Your task to perform on an android device: Open battery settings Image 0: 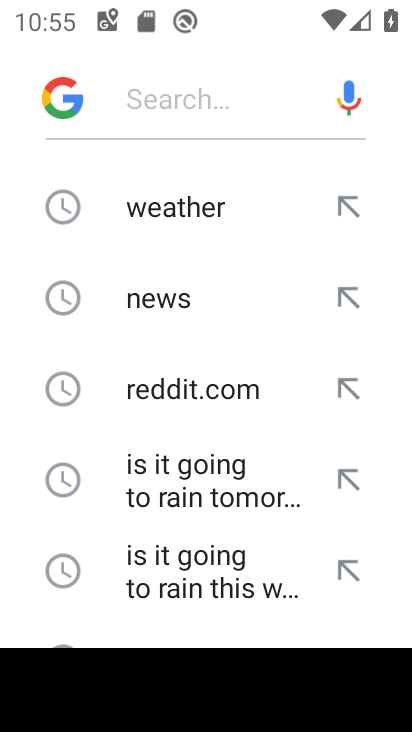
Step 0: press home button
Your task to perform on an android device: Open battery settings Image 1: 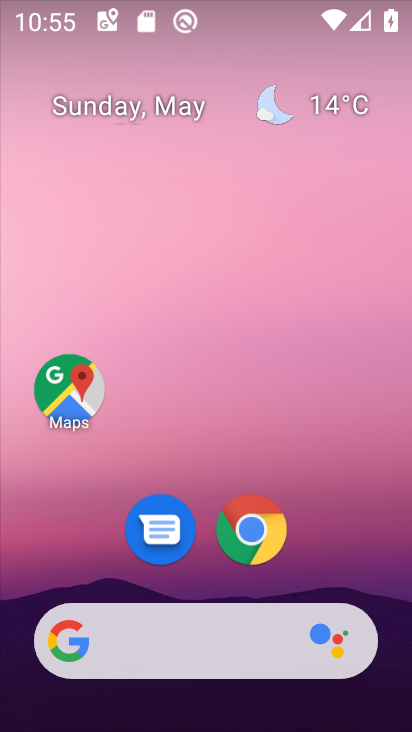
Step 1: drag from (215, 637) to (186, 142)
Your task to perform on an android device: Open battery settings Image 2: 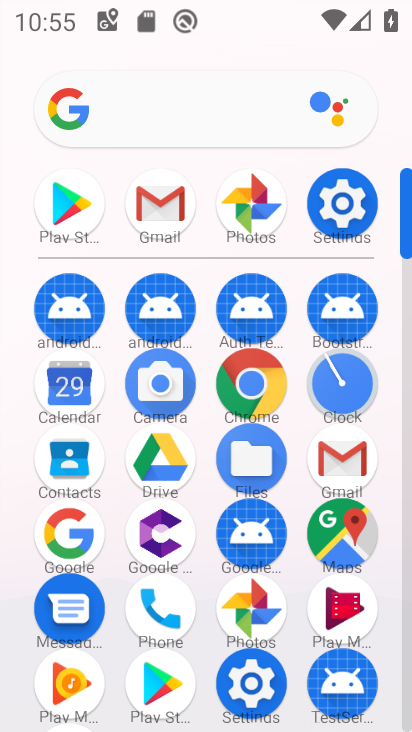
Step 2: click (332, 194)
Your task to perform on an android device: Open battery settings Image 3: 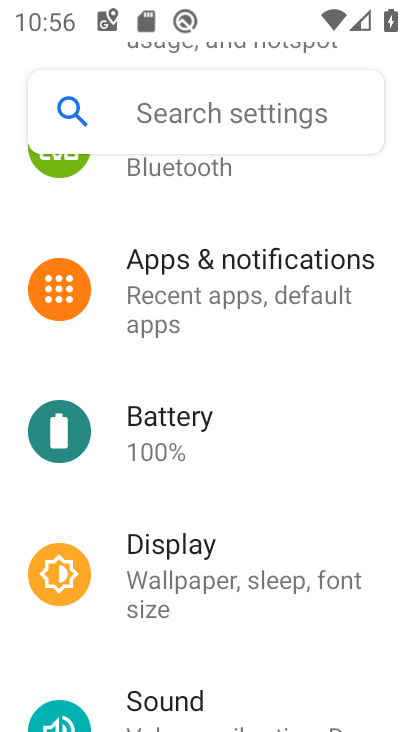
Step 3: click (194, 415)
Your task to perform on an android device: Open battery settings Image 4: 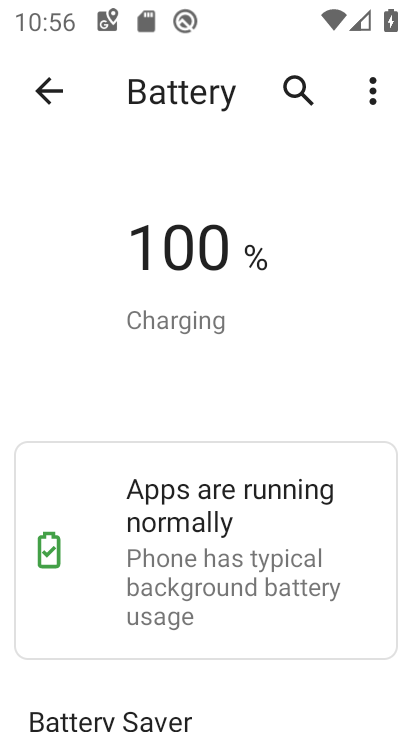
Step 4: task complete